Your task to perform on an android device: Open calendar and show me the second week of next month Image 0: 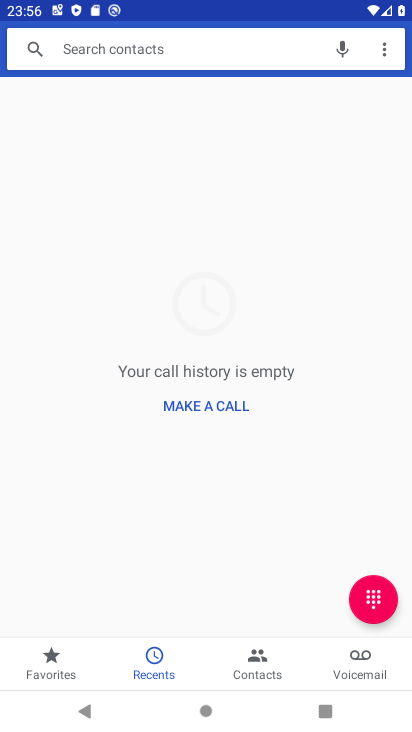
Step 0: press home button
Your task to perform on an android device: Open calendar and show me the second week of next month Image 1: 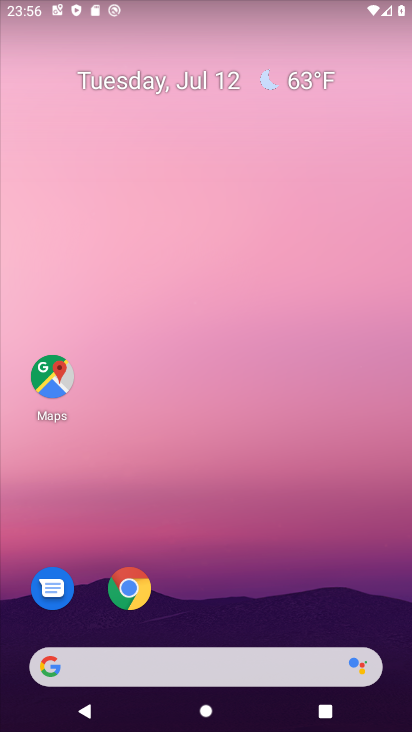
Step 1: drag from (31, 716) to (199, 0)
Your task to perform on an android device: Open calendar and show me the second week of next month Image 2: 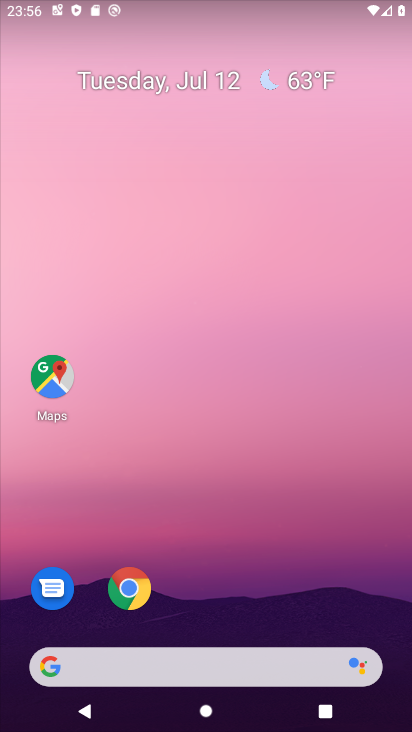
Step 2: drag from (27, 690) to (234, 32)
Your task to perform on an android device: Open calendar and show me the second week of next month Image 3: 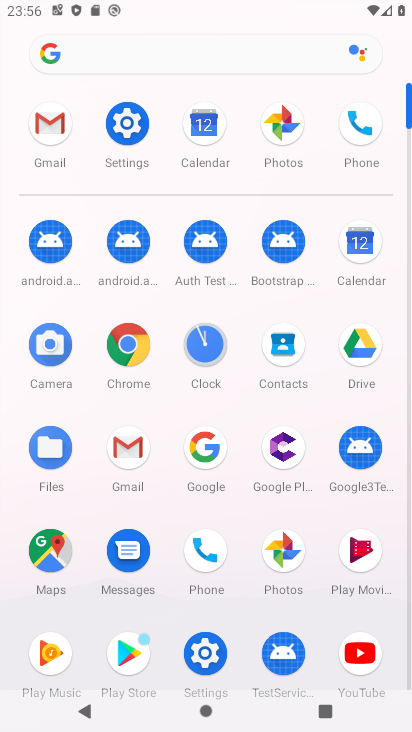
Step 3: click (344, 251)
Your task to perform on an android device: Open calendar and show me the second week of next month Image 4: 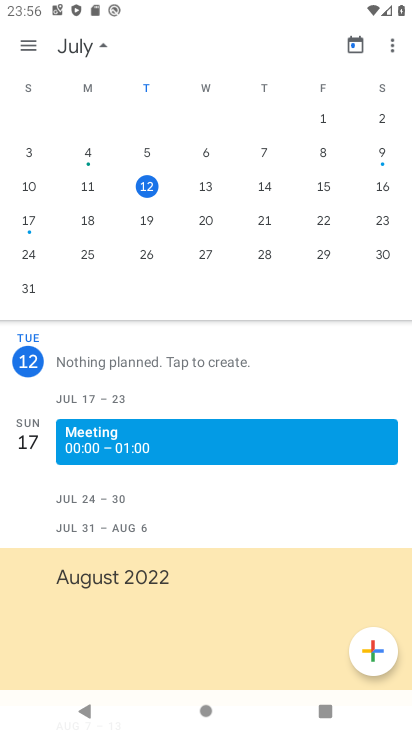
Step 4: drag from (374, 156) to (19, 222)
Your task to perform on an android device: Open calendar and show me the second week of next month Image 5: 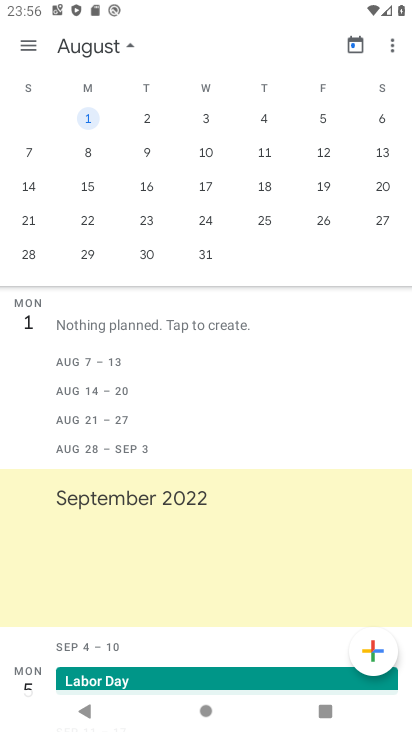
Step 5: click (83, 155)
Your task to perform on an android device: Open calendar and show me the second week of next month Image 6: 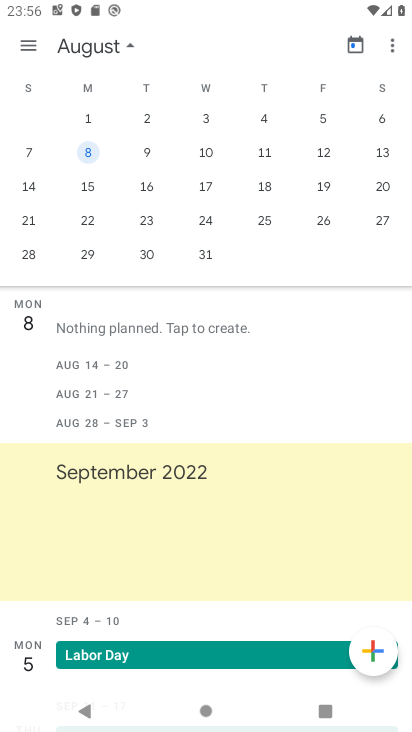
Step 6: task complete